Your task to perform on an android device: Open battery settings Image 0: 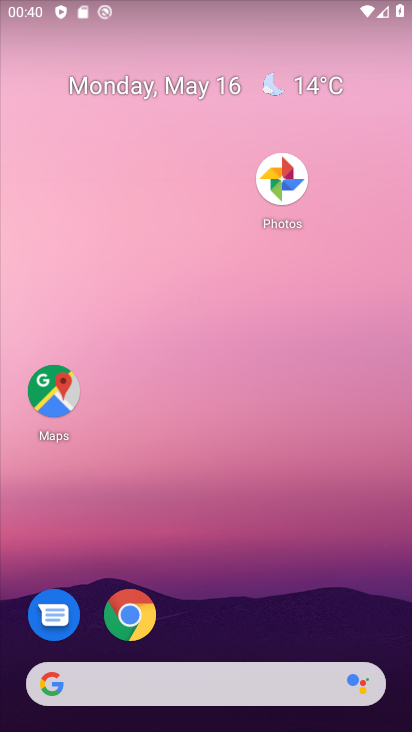
Step 0: drag from (285, 554) to (285, 128)
Your task to perform on an android device: Open battery settings Image 1: 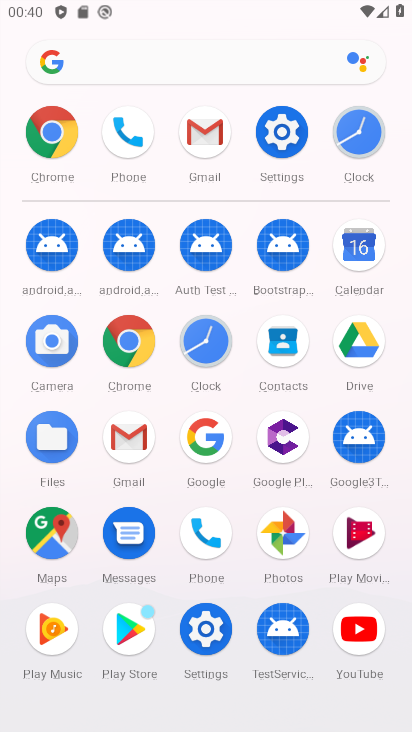
Step 1: click (189, 642)
Your task to perform on an android device: Open battery settings Image 2: 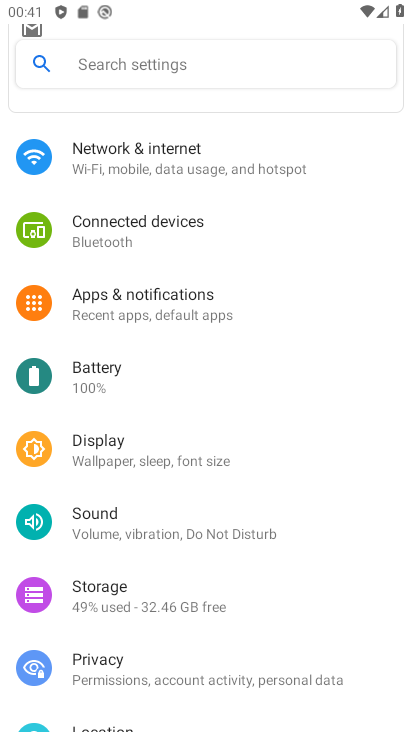
Step 2: click (117, 367)
Your task to perform on an android device: Open battery settings Image 3: 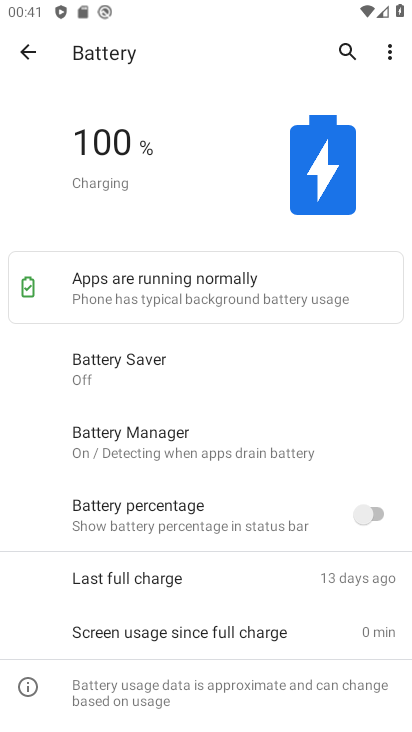
Step 3: task complete